Your task to perform on an android device: Go to network settings Image 0: 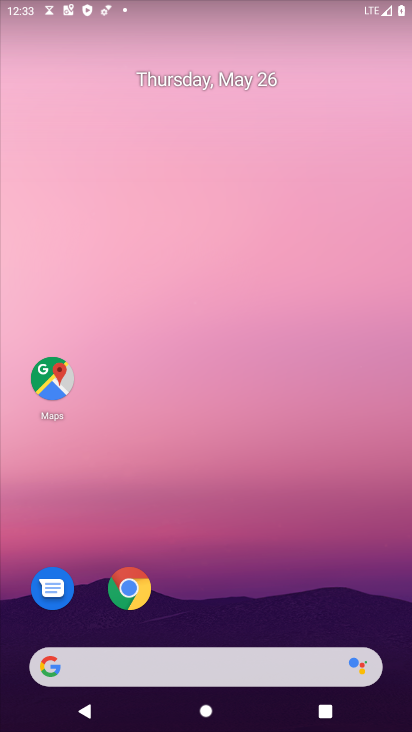
Step 0: drag from (241, 546) to (260, 67)
Your task to perform on an android device: Go to network settings Image 1: 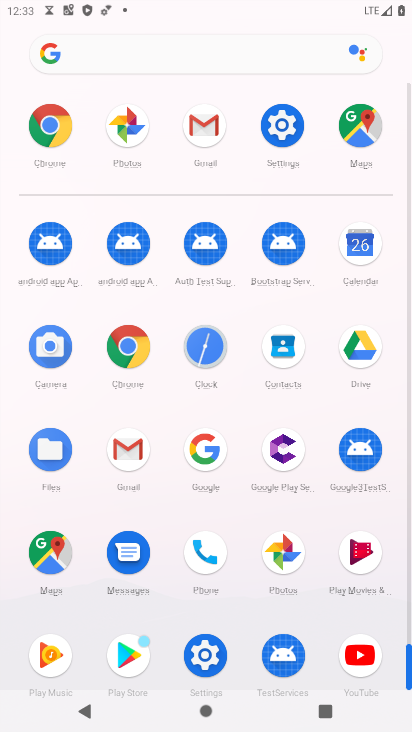
Step 1: drag from (14, 466) to (18, 268)
Your task to perform on an android device: Go to network settings Image 2: 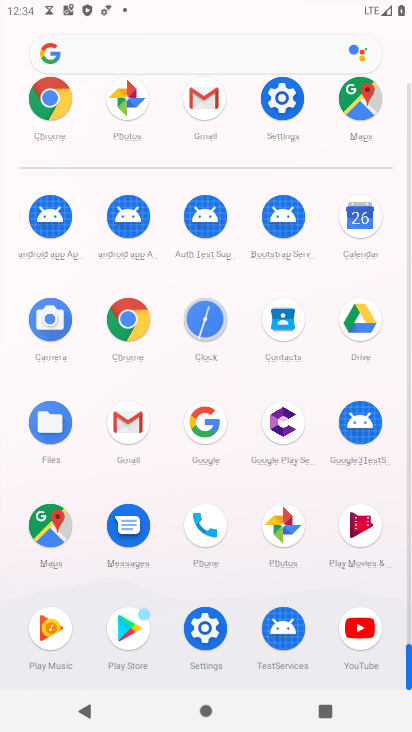
Step 2: click (206, 627)
Your task to perform on an android device: Go to network settings Image 3: 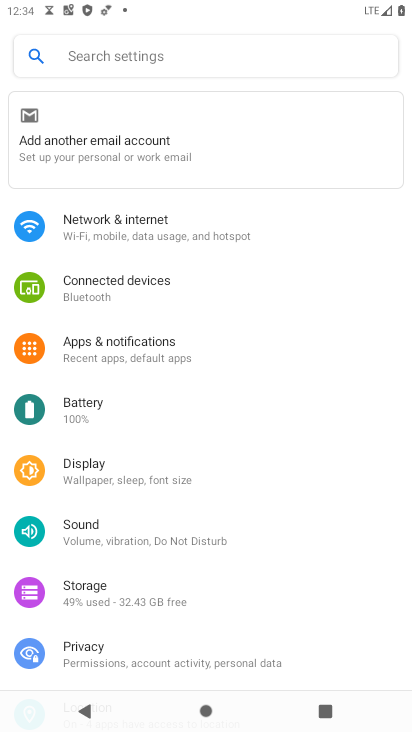
Step 3: click (194, 219)
Your task to perform on an android device: Go to network settings Image 4: 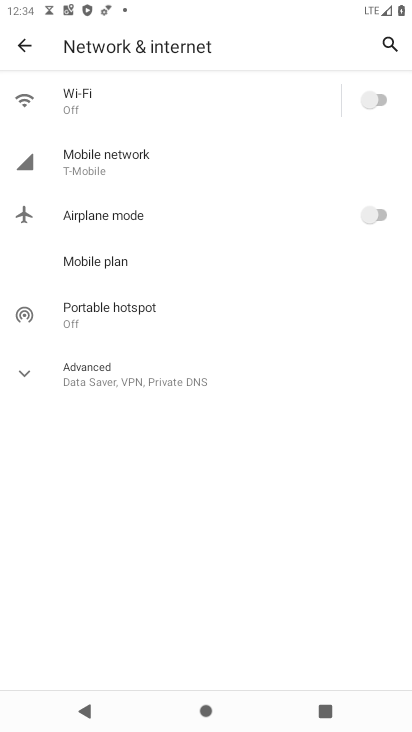
Step 4: click (34, 374)
Your task to perform on an android device: Go to network settings Image 5: 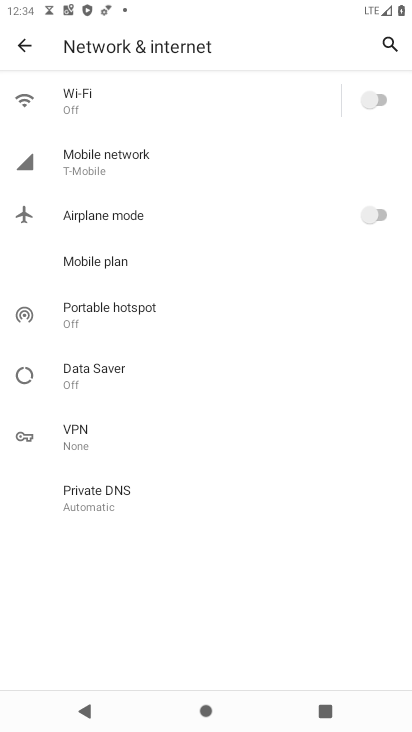
Step 5: click (145, 99)
Your task to perform on an android device: Go to network settings Image 6: 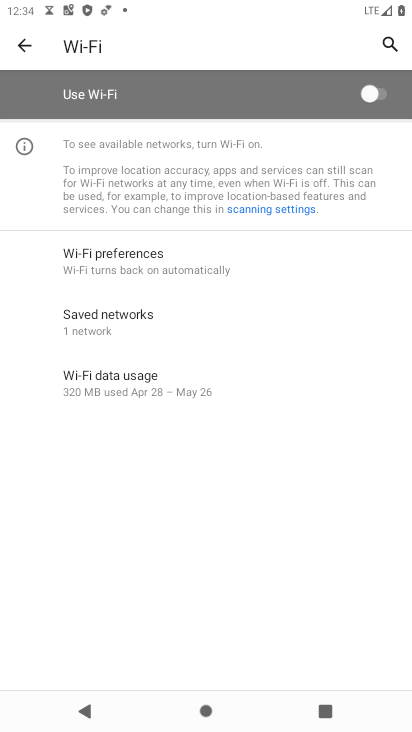
Step 6: task complete